Your task to perform on an android device: Open calendar and show me the second week of next month Image 0: 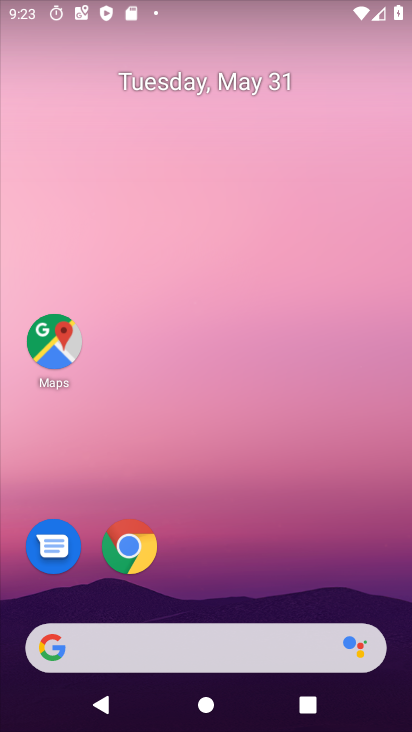
Step 0: click (193, 79)
Your task to perform on an android device: Open calendar and show me the second week of next month Image 1: 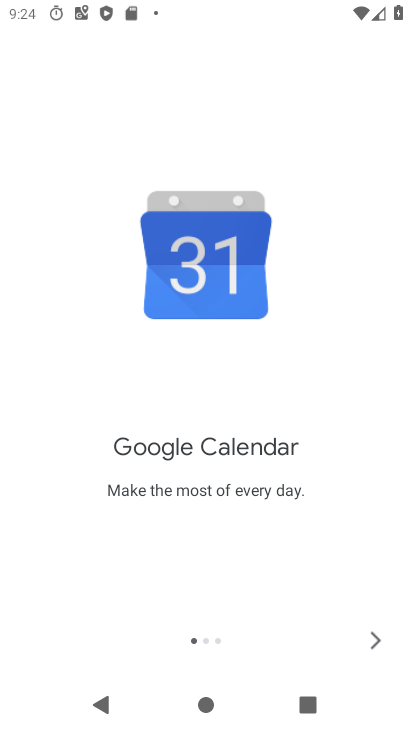
Step 1: click (379, 633)
Your task to perform on an android device: Open calendar and show me the second week of next month Image 2: 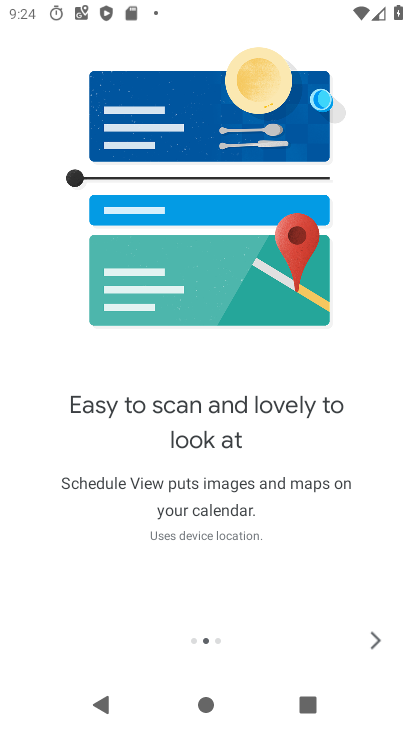
Step 2: click (379, 633)
Your task to perform on an android device: Open calendar and show me the second week of next month Image 3: 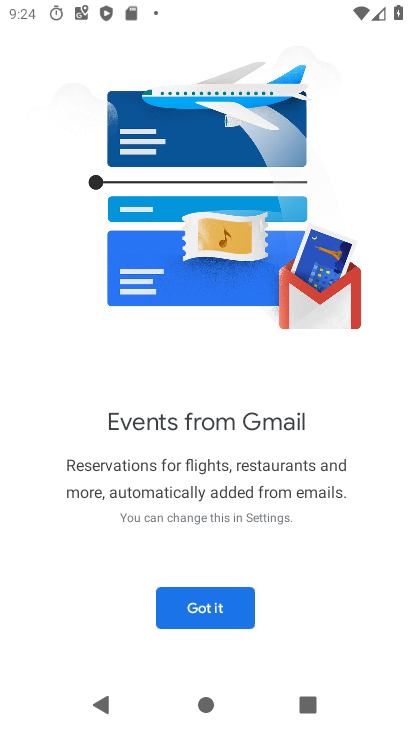
Step 3: click (230, 608)
Your task to perform on an android device: Open calendar and show me the second week of next month Image 4: 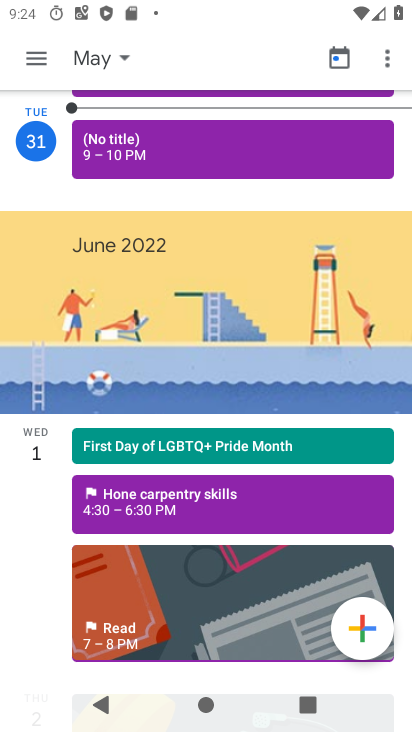
Step 4: click (32, 59)
Your task to perform on an android device: Open calendar and show me the second week of next month Image 5: 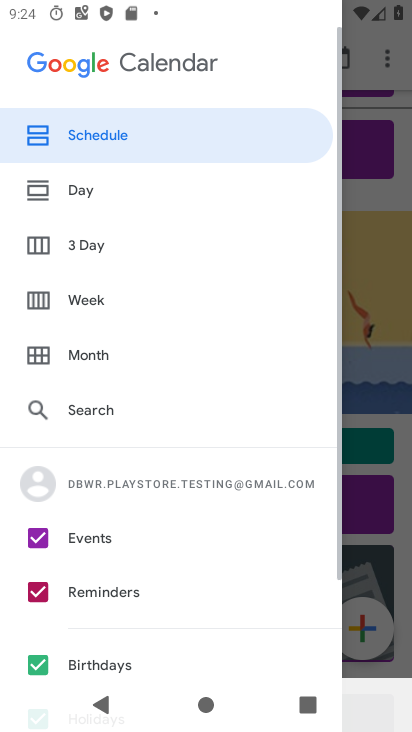
Step 5: click (71, 298)
Your task to perform on an android device: Open calendar and show me the second week of next month Image 6: 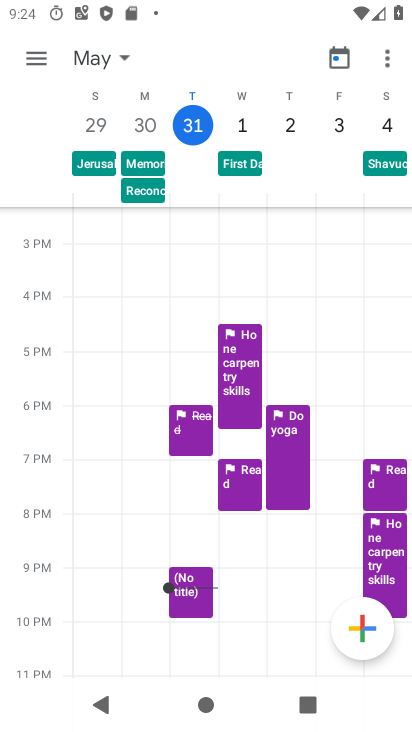
Step 6: click (125, 52)
Your task to perform on an android device: Open calendar and show me the second week of next month Image 7: 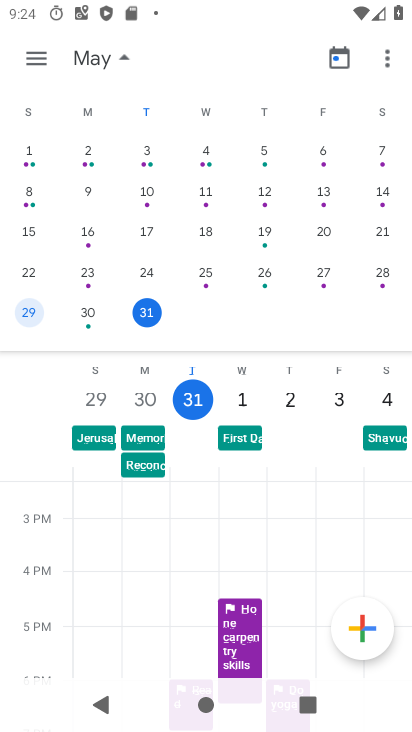
Step 7: drag from (331, 306) to (27, 259)
Your task to perform on an android device: Open calendar and show me the second week of next month Image 8: 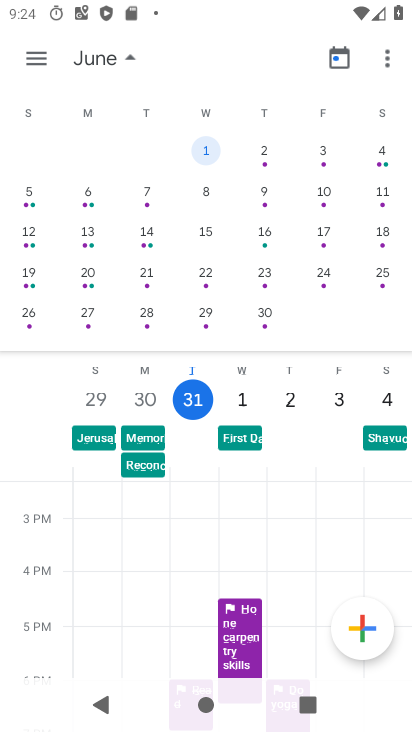
Step 8: click (208, 192)
Your task to perform on an android device: Open calendar and show me the second week of next month Image 9: 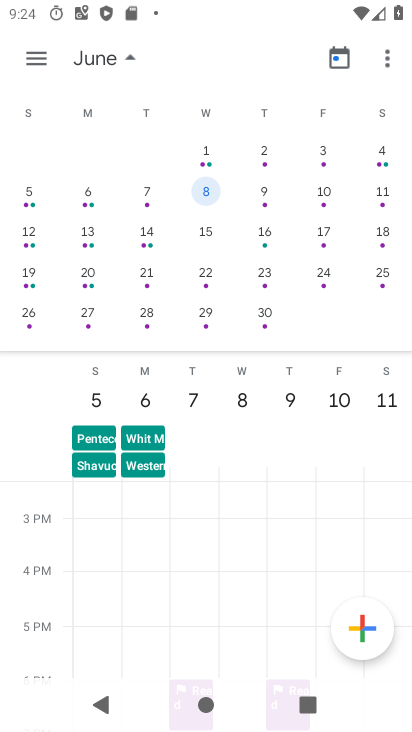
Step 9: task complete